Your task to perform on an android device: Is it going to rain today? Image 0: 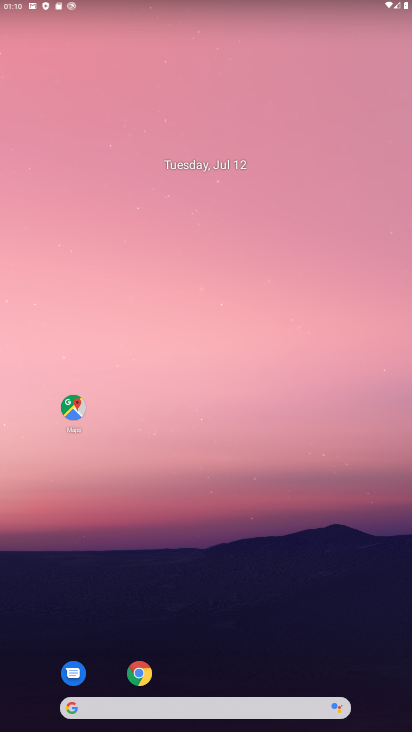
Step 0: click (187, 709)
Your task to perform on an android device: Is it going to rain today? Image 1: 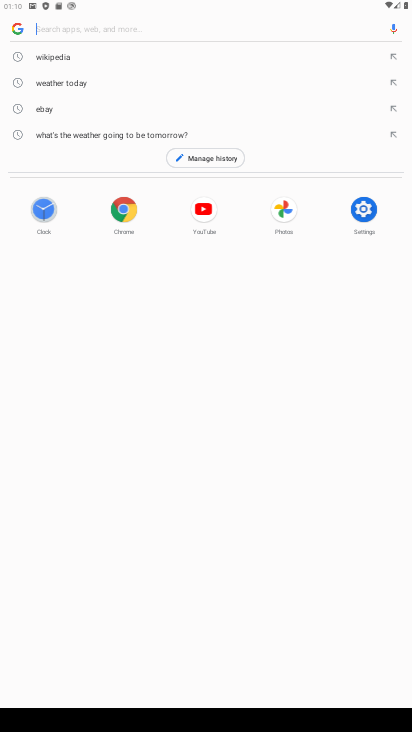
Step 1: type "Is it going to rain today?"
Your task to perform on an android device: Is it going to rain today? Image 2: 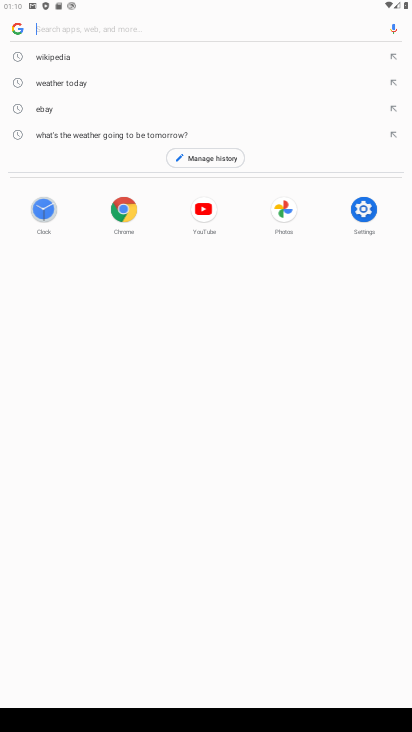
Step 2: click (66, 27)
Your task to perform on an android device: Is it going to rain today? Image 3: 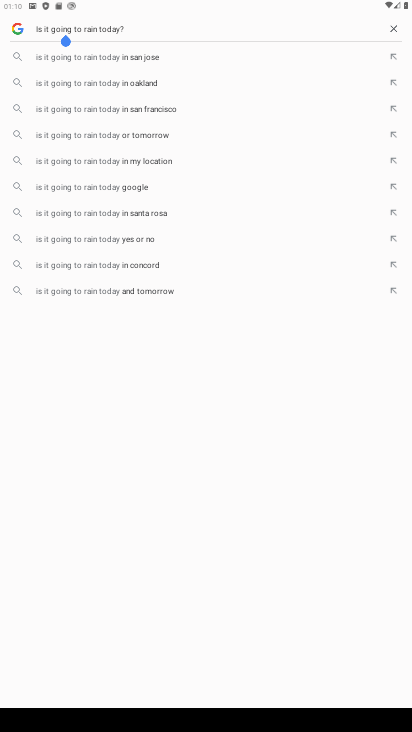
Step 3: press enter
Your task to perform on an android device: Is it going to rain today? Image 4: 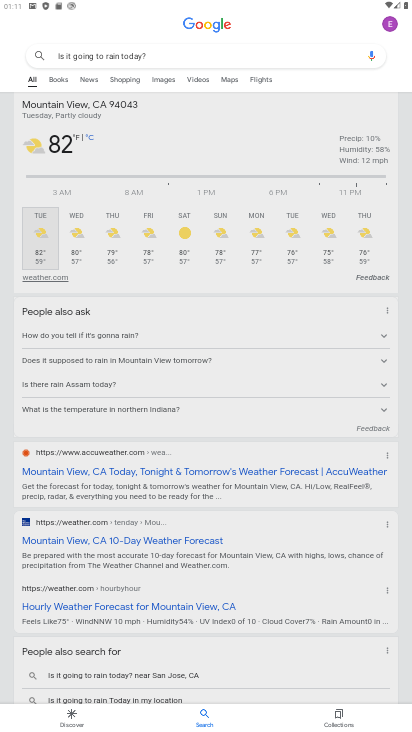
Step 4: task complete